Your task to perform on an android device: Open my contact list Image 0: 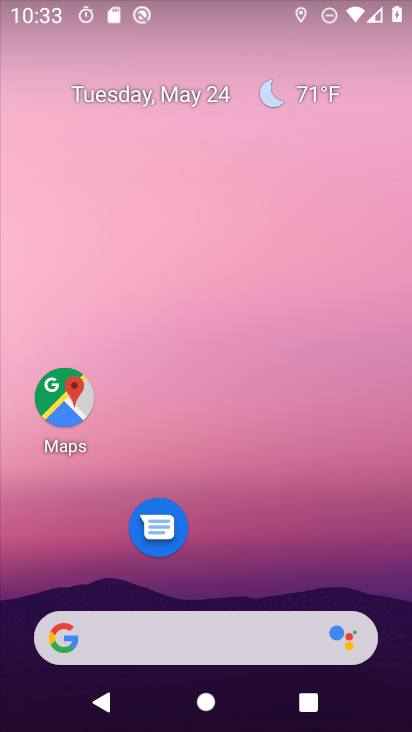
Step 0: drag from (244, 525) to (265, 155)
Your task to perform on an android device: Open my contact list Image 1: 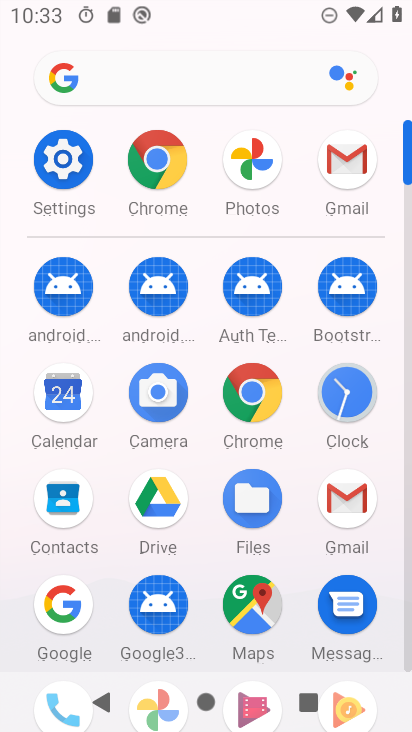
Step 1: drag from (297, 582) to (316, 196)
Your task to perform on an android device: Open my contact list Image 2: 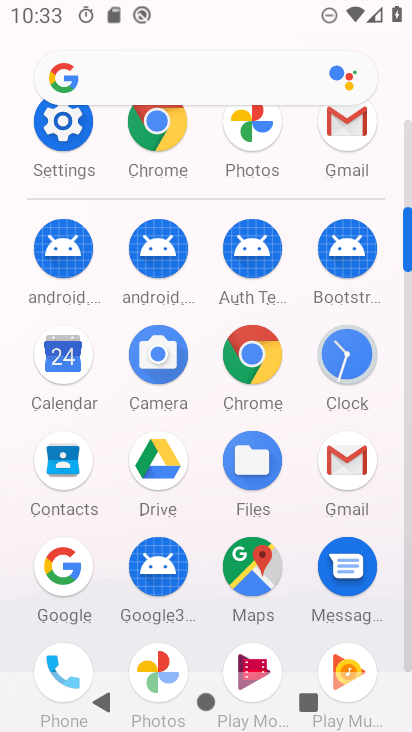
Step 2: drag from (195, 543) to (216, 298)
Your task to perform on an android device: Open my contact list Image 3: 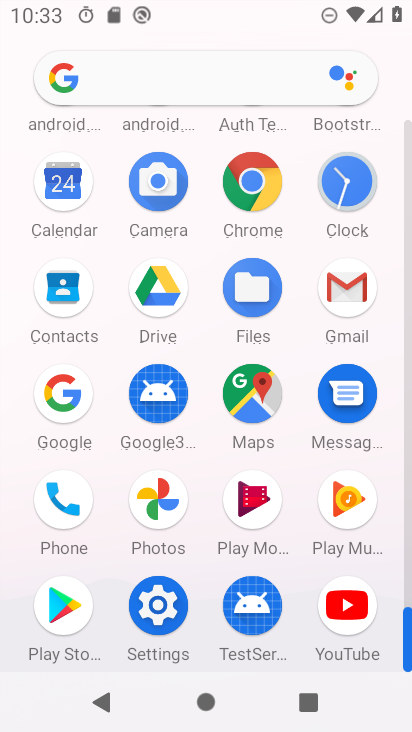
Step 3: drag from (208, 298) to (203, 480)
Your task to perform on an android device: Open my contact list Image 4: 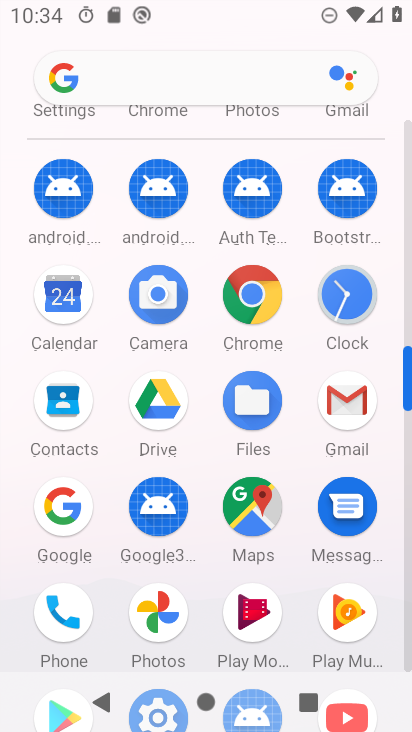
Step 4: click (66, 406)
Your task to perform on an android device: Open my contact list Image 5: 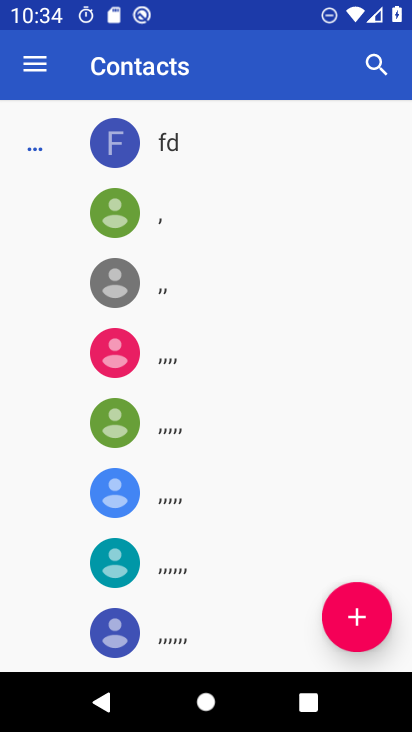
Step 5: click (354, 627)
Your task to perform on an android device: Open my contact list Image 6: 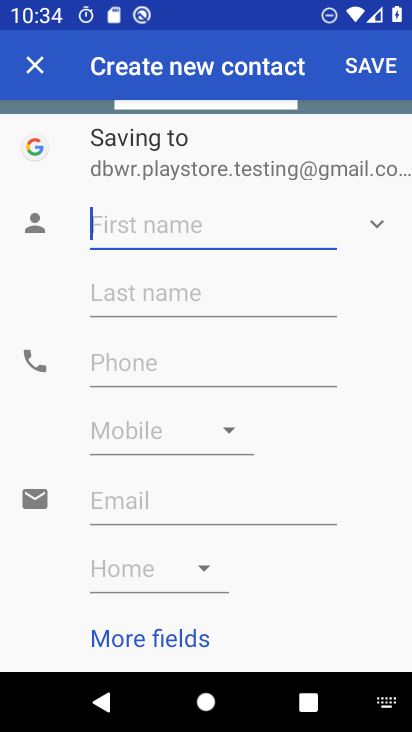
Step 6: type "ghdgdgh"
Your task to perform on an android device: Open my contact list Image 7: 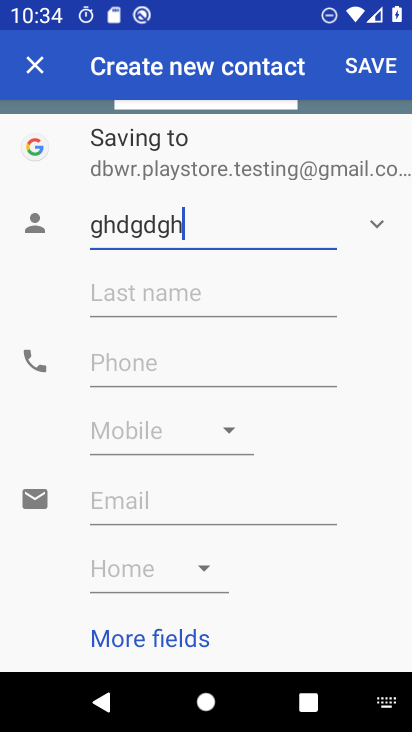
Step 7: click (372, 71)
Your task to perform on an android device: Open my contact list Image 8: 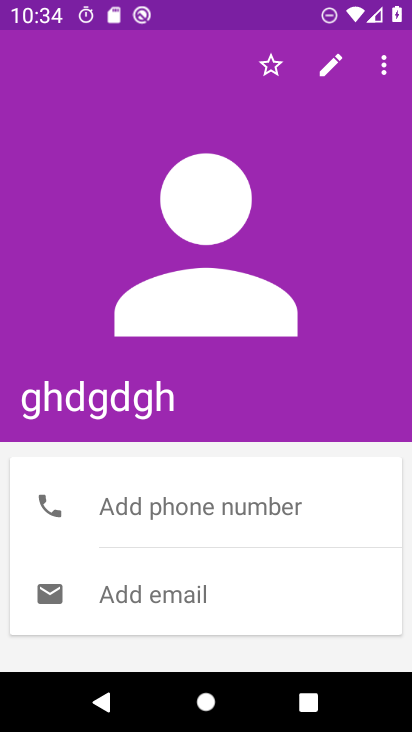
Step 8: task complete